Your task to perform on an android device: turn off sleep mode Image 0: 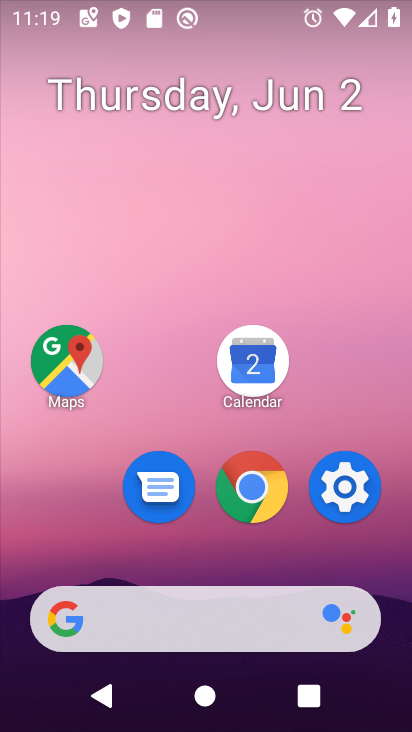
Step 0: click (335, 510)
Your task to perform on an android device: turn off sleep mode Image 1: 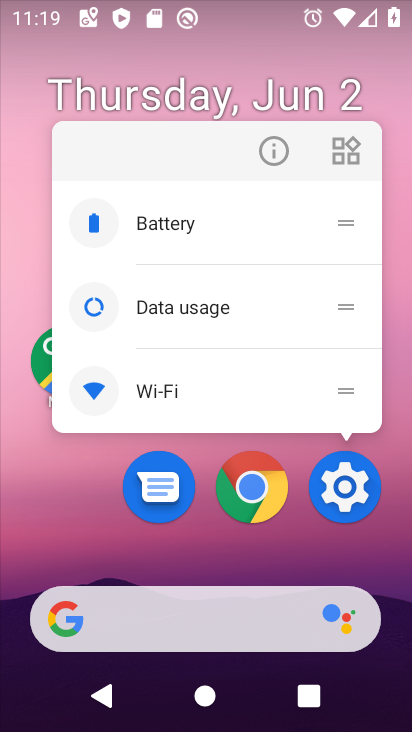
Step 1: click (341, 514)
Your task to perform on an android device: turn off sleep mode Image 2: 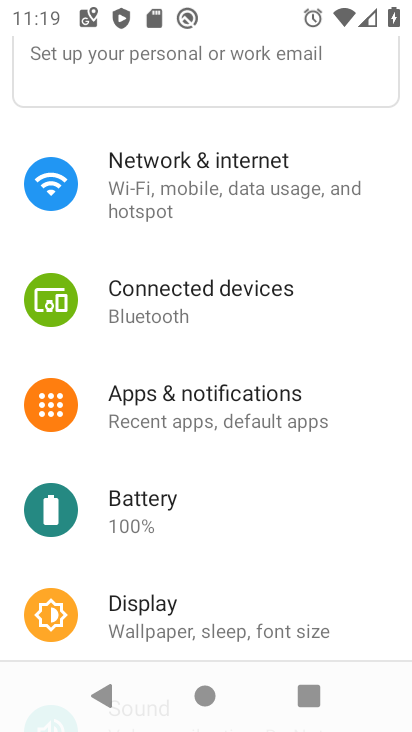
Step 2: drag from (172, 87) to (141, 247)
Your task to perform on an android device: turn off sleep mode Image 3: 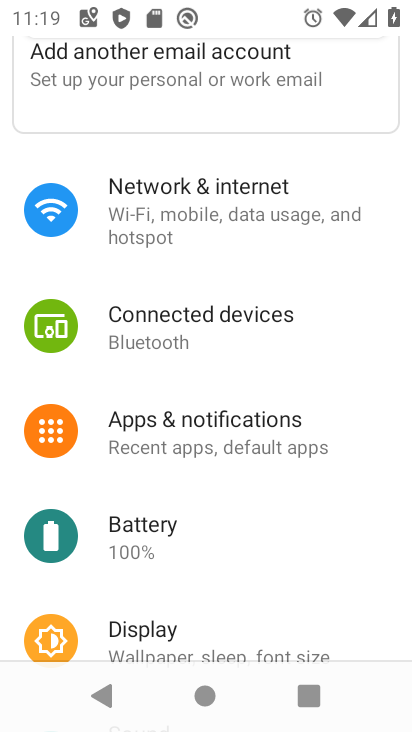
Step 3: drag from (144, 104) to (133, 257)
Your task to perform on an android device: turn off sleep mode Image 4: 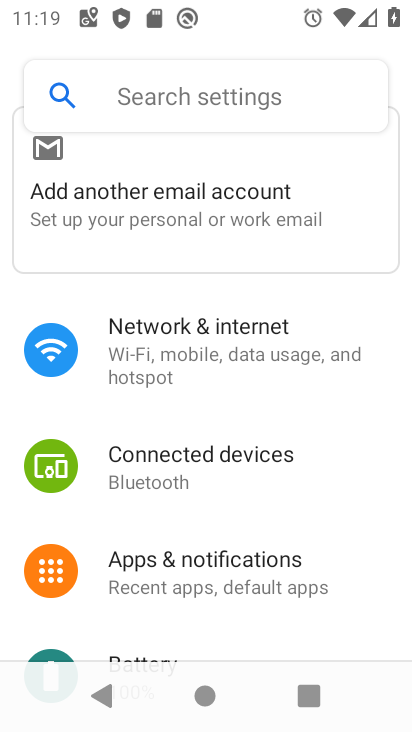
Step 4: click (148, 91)
Your task to perform on an android device: turn off sleep mode Image 5: 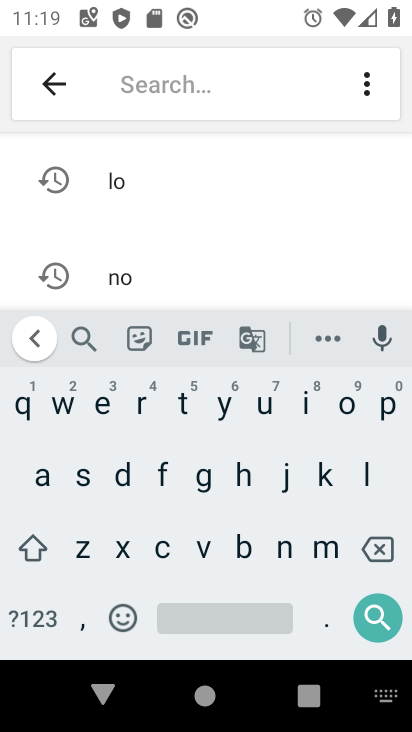
Step 5: click (87, 466)
Your task to perform on an android device: turn off sleep mode Image 6: 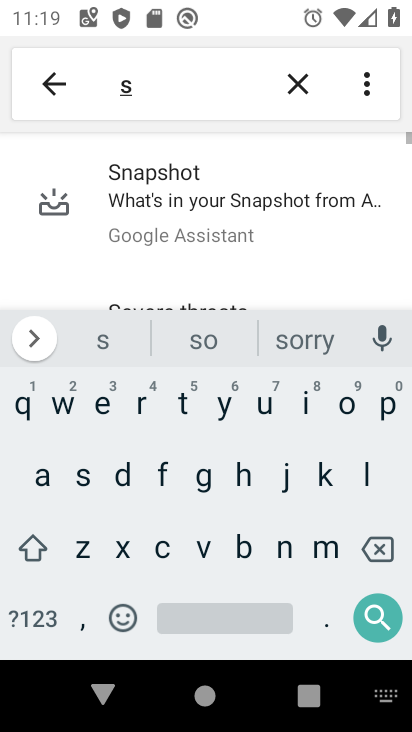
Step 6: click (360, 472)
Your task to perform on an android device: turn off sleep mode Image 7: 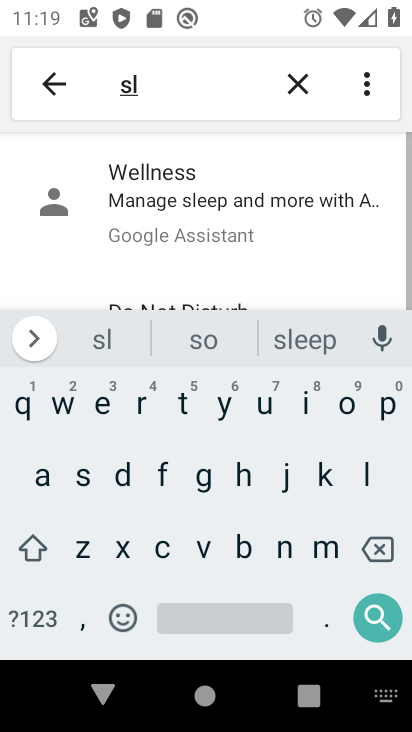
Step 7: click (195, 185)
Your task to perform on an android device: turn off sleep mode Image 8: 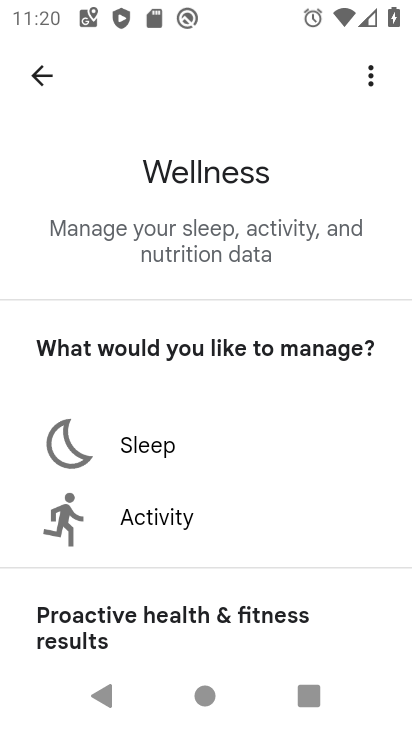
Step 8: click (159, 453)
Your task to perform on an android device: turn off sleep mode Image 9: 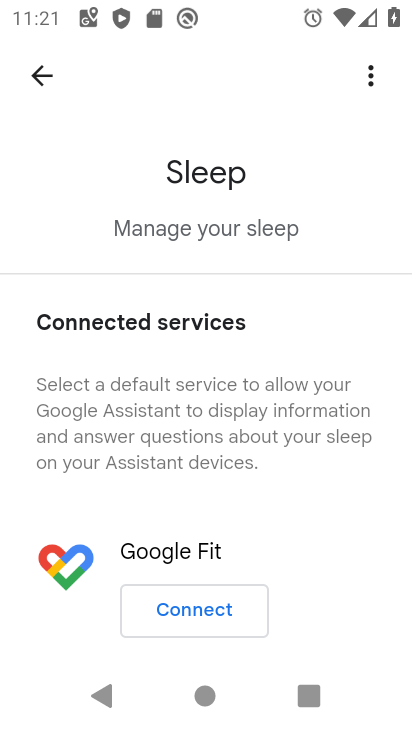
Step 9: task complete